Your task to perform on an android device: Add razer blade to the cart on amazon Image 0: 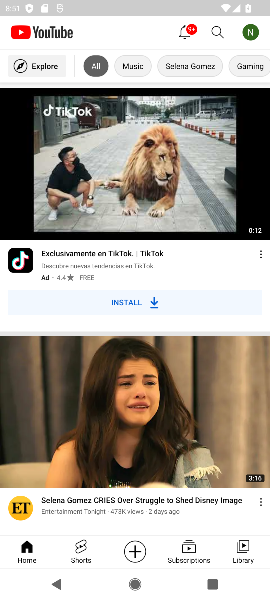
Step 0: press home button
Your task to perform on an android device: Add razer blade to the cart on amazon Image 1: 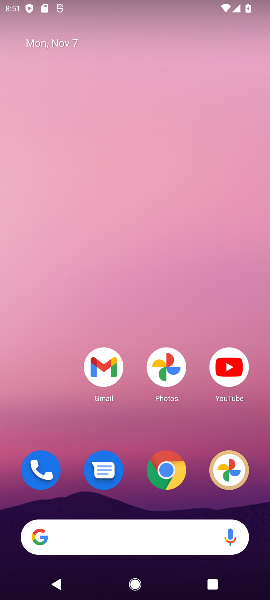
Step 1: click (166, 459)
Your task to perform on an android device: Add razer blade to the cart on amazon Image 2: 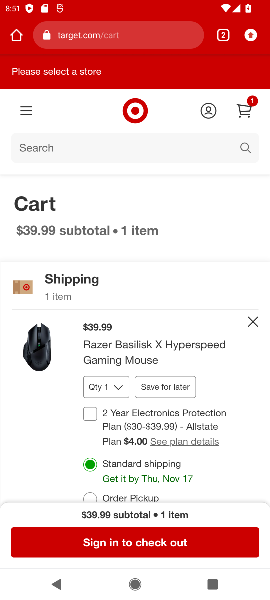
Step 2: click (167, 44)
Your task to perform on an android device: Add razer blade to the cart on amazon Image 3: 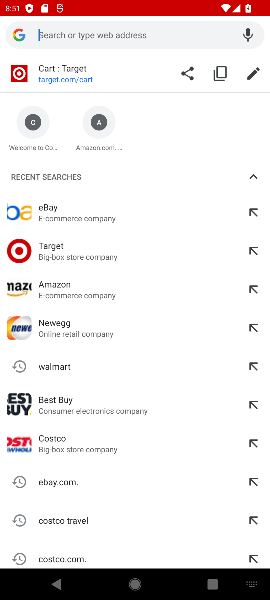
Step 3: type "amazon"
Your task to perform on an android device: Add razer blade to the cart on amazon Image 4: 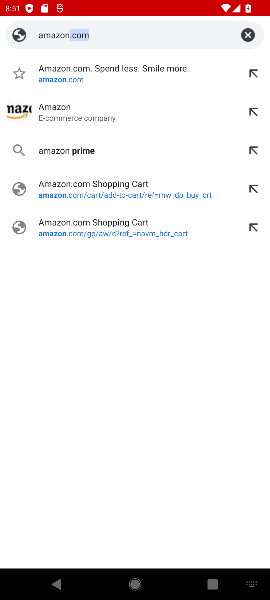
Step 4: click (108, 118)
Your task to perform on an android device: Add razer blade to the cart on amazon Image 5: 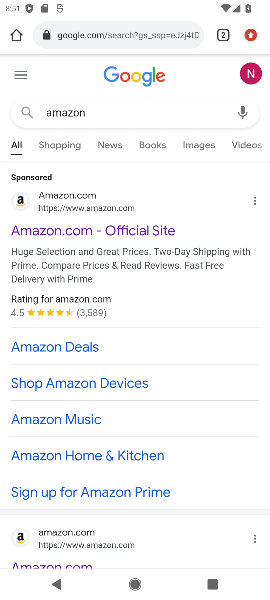
Step 5: click (42, 232)
Your task to perform on an android device: Add razer blade to the cart on amazon Image 6: 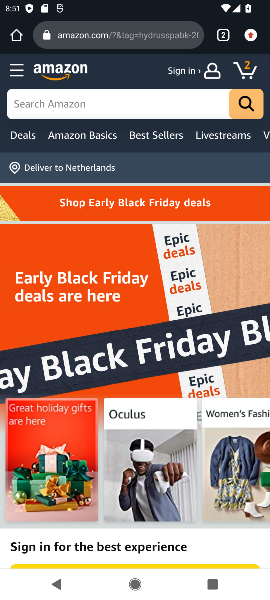
Step 6: click (103, 94)
Your task to perform on an android device: Add razer blade to the cart on amazon Image 7: 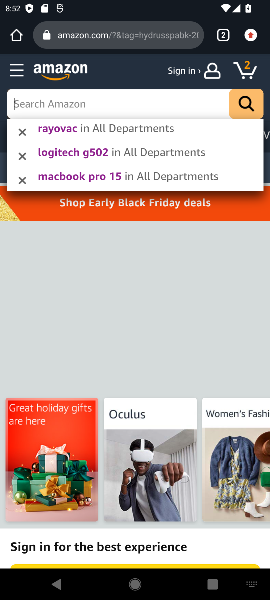
Step 7: type "razer blade"
Your task to perform on an android device: Add razer blade to the cart on amazon Image 8: 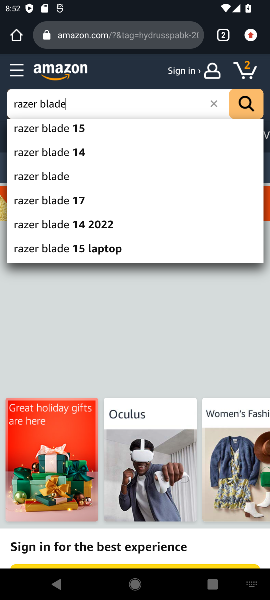
Step 8: click (245, 100)
Your task to perform on an android device: Add razer blade to the cart on amazon Image 9: 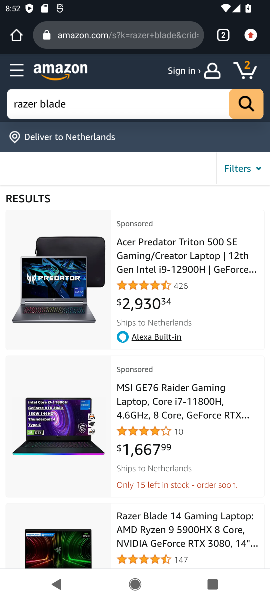
Step 9: click (136, 529)
Your task to perform on an android device: Add razer blade to the cart on amazon Image 10: 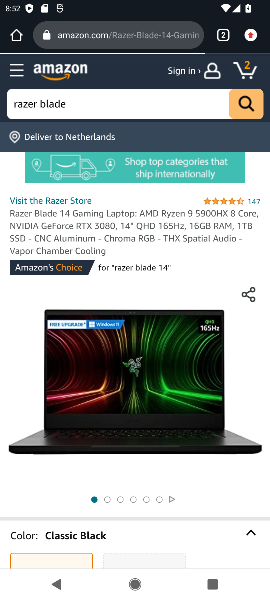
Step 10: drag from (121, 470) to (98, 130)
Your task to perform on an android device: Add razer blade to the cart on amazon Image 11: 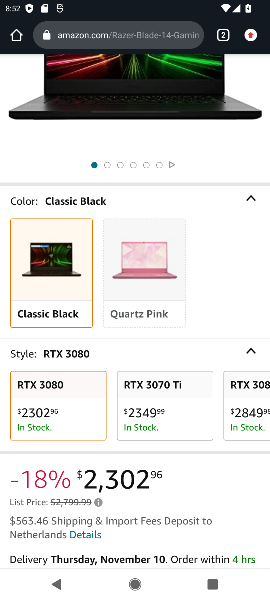
Step 11: click (147, 282)
Your task to perform on an android device: Add razer blade to the cart on amazon Image 12: 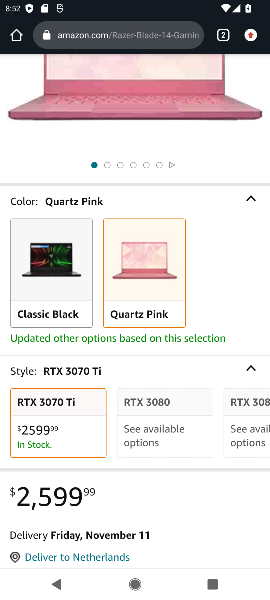
Step 12: drag from (146, 526) to (142, 56)
Your task to perform on an android device: Add razer blade to the cart on amazon Image 13: 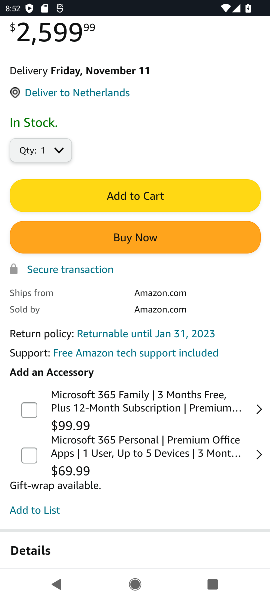
Step 13: click (107, 219)
Your task to perform on an android device: Add razer blade to the cart on amazon Image 14: 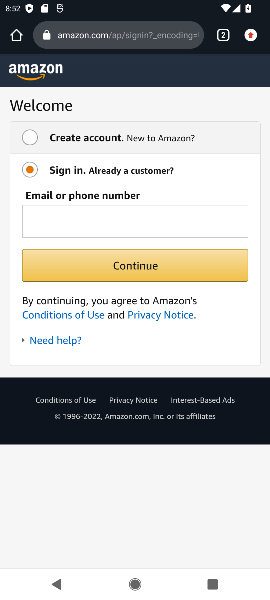
Step 14: task complete